Your task to perform on an android device: Check the weather Image 0: 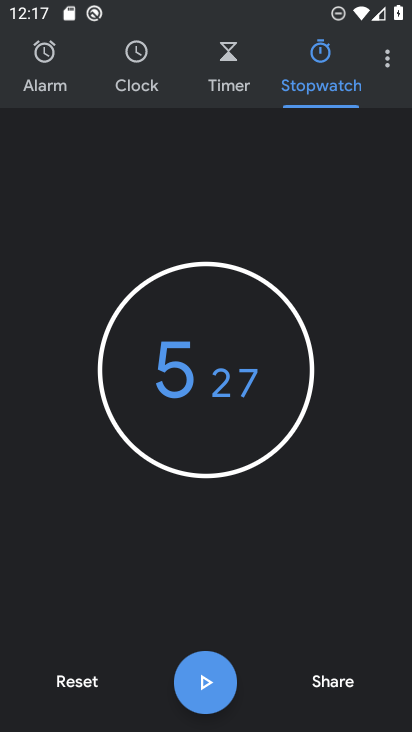
Step 0: press home button
Your task to perform on an android device: Check the weather Image 1: 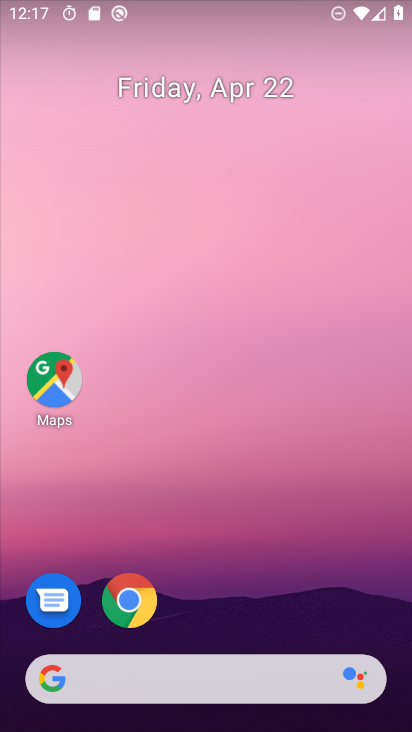
Step 1: drag from (215, 619) to (246, 64)
Your task to perform on an android device: Check the weather Image 2: 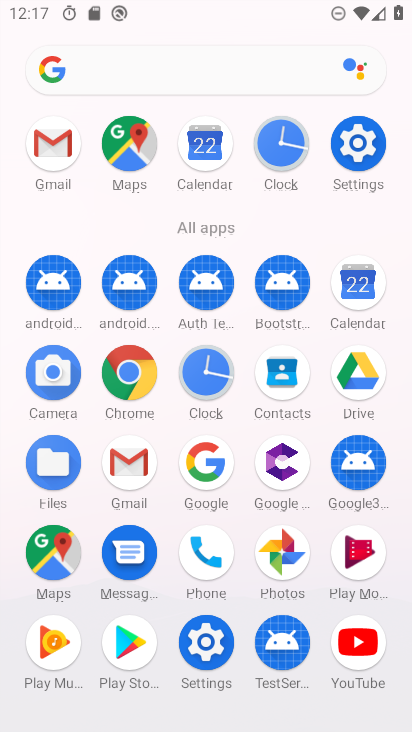
Step 2: click (206, 463)
Your task to perform on an android device: Check the weather Image 3: 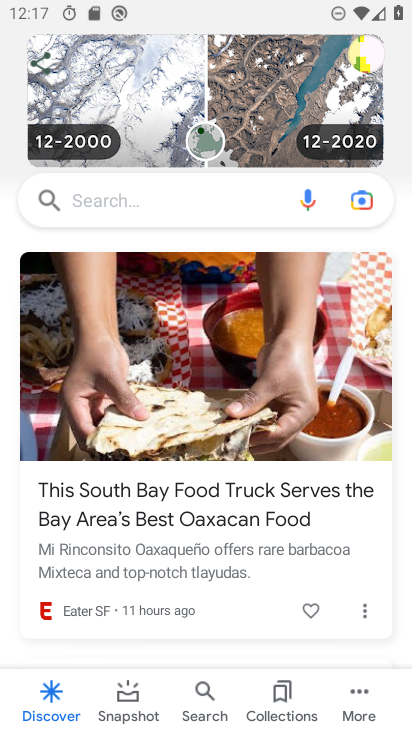
Step 3: click (218, 208)
Your task to perform on an android device: Check the weather Image 4: 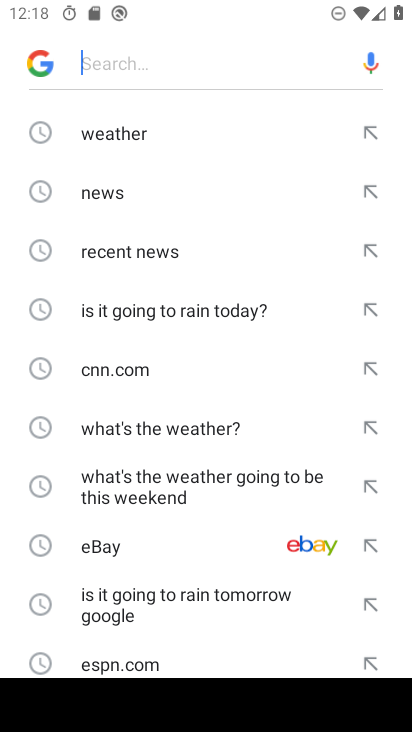
Step 4: click (105, 133)
Your task to perform on an android device: Check the weather Image 5: 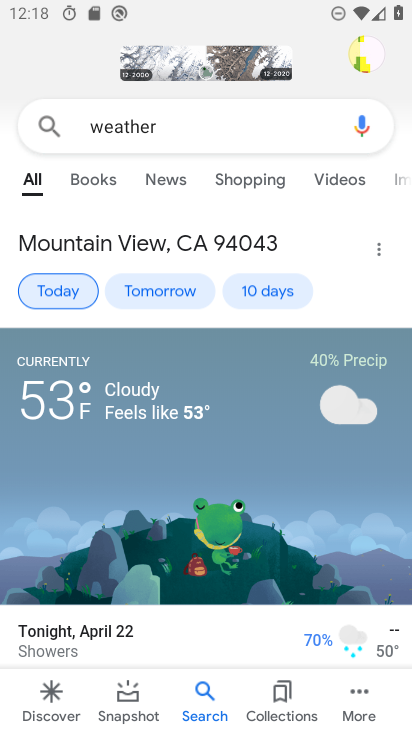
Step 5: task complete